Your task to perform on an android device: set the timer Image 0: 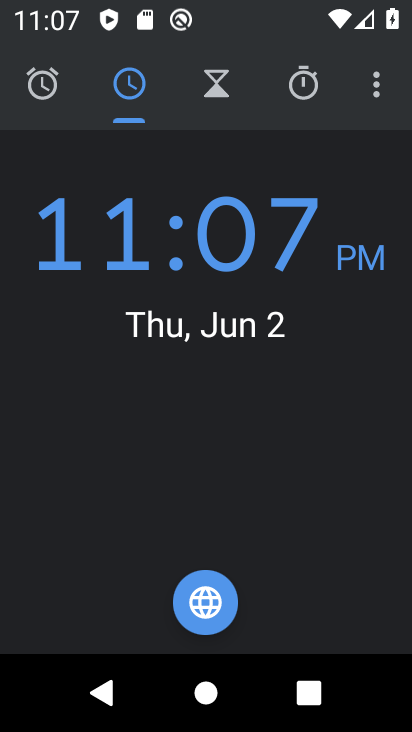
Step 0: click (215, 99)
Your task to perform on an android device: set the timer Image 1: 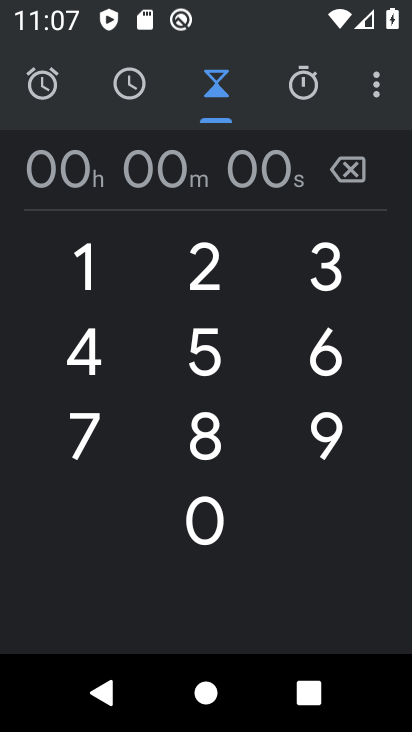
Step 1: click (87, 238)
Your task to perform on an android device: set the timer Image 2: 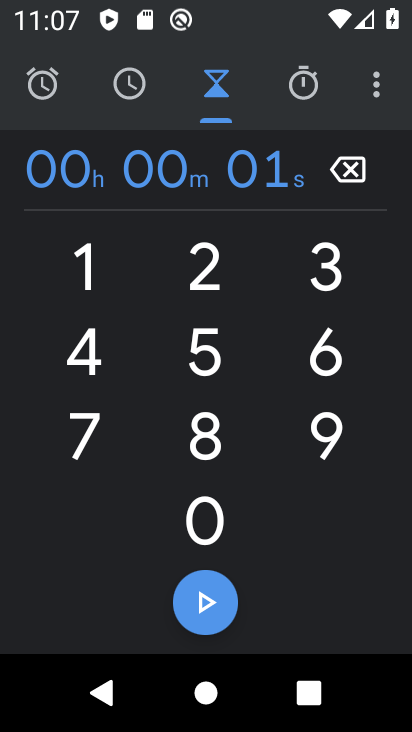
Step 2: click (312, 261)
Your task to perform on an android device: set the timer Image 3: 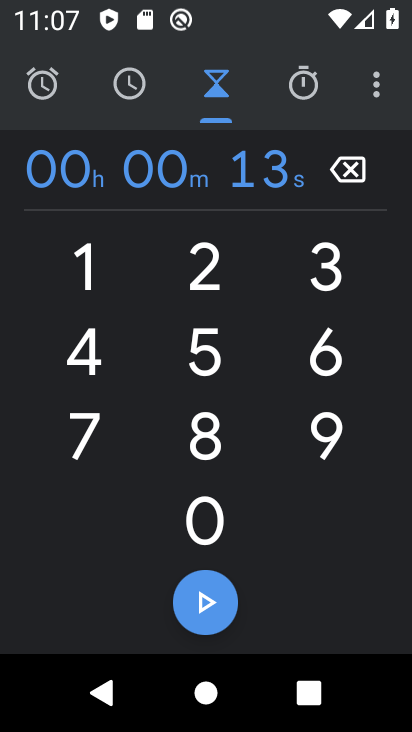
Step 3: click (216, 522)
Your task to perform on an android device: set the timer Image 4: 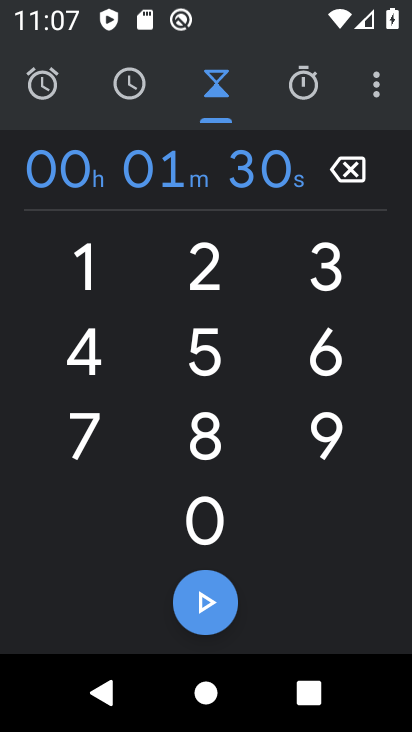
Step 4: click (216, 522)
Your task to perform on an android device: set the timer Image 5: 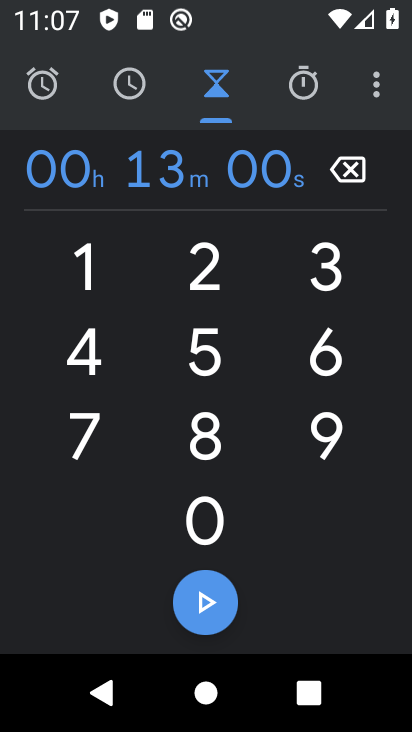
Step 5: click (216, 522)
Your task to perform on an android device: set the timer Image 6: 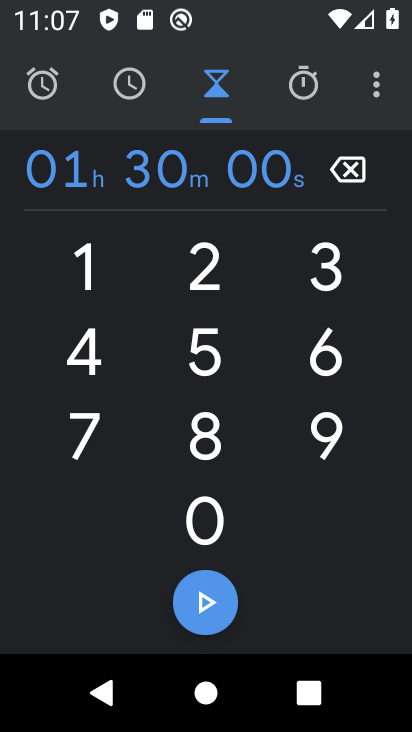
Step 6: task complete